Your task to perform on an android device: Open Yahoo.com Image 0: 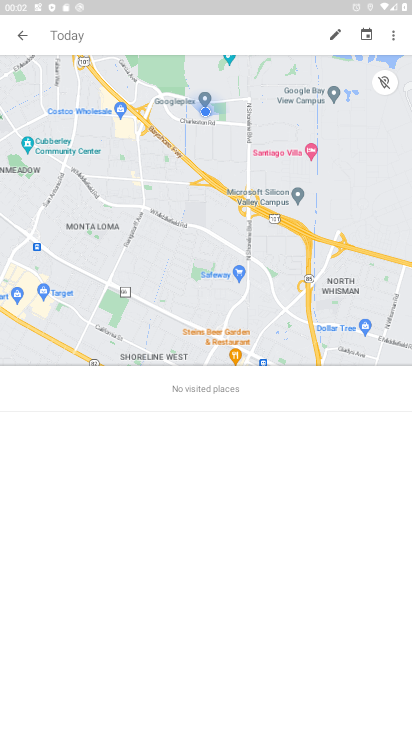
Step 0: click (216, 707)
Your task to perform on an android device: Open Yahoo.com Image 1: 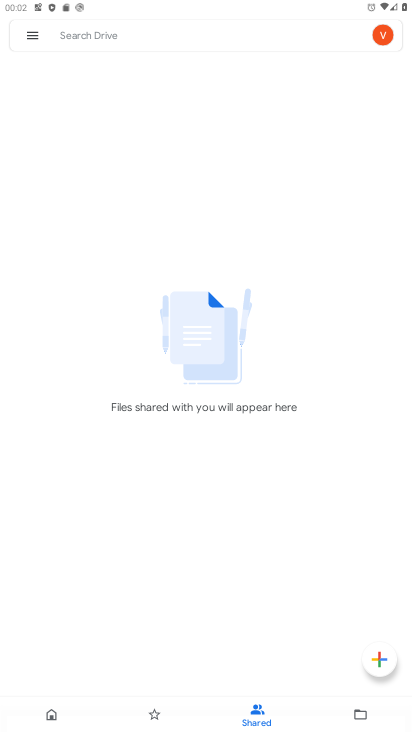
Step 1: press home button
Your task to perform on an android device: Open Yahoo.com Image 2: 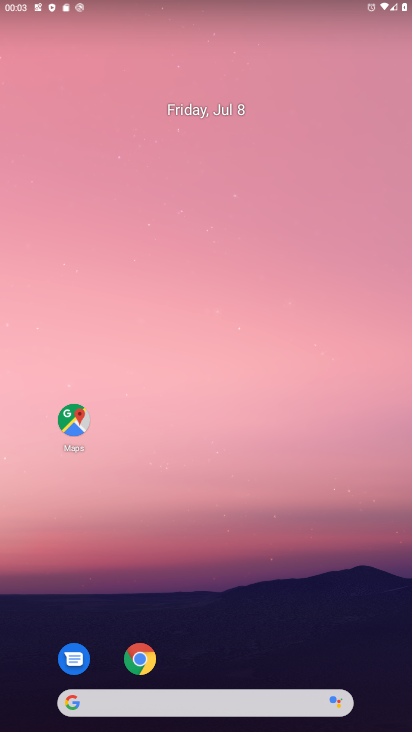
Step 2: click (137, 662)
Your task to perform on an android device: Open Yahoo.com Image 3: 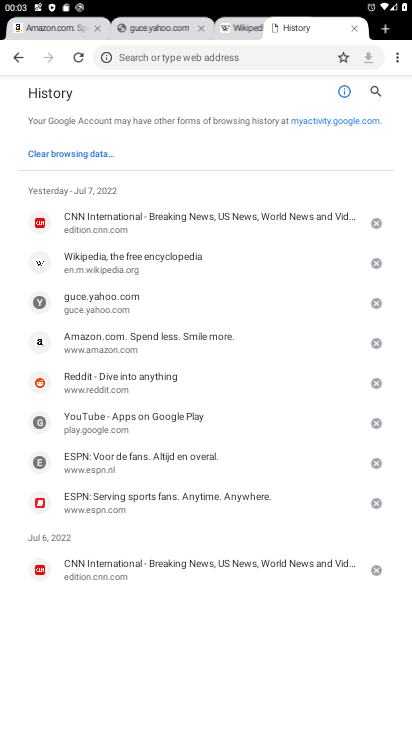
Step 3: click (388, 30)
Your task to perform on an android device: Open Yahoo.com Image 4: 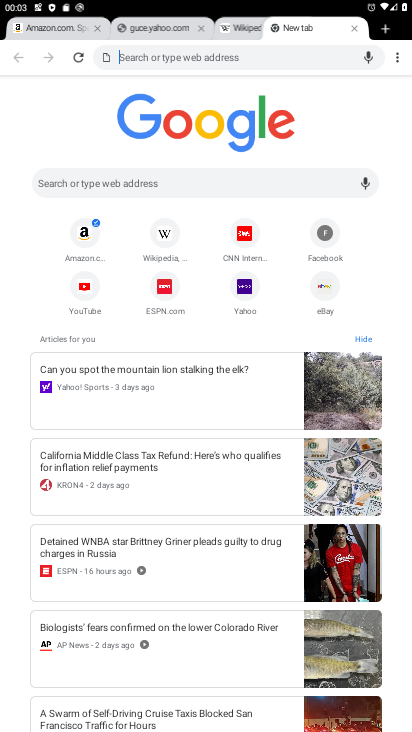
Step 4: click (241, 288)
Your task to perform on an android device: Open Yahoo.com Image 5: 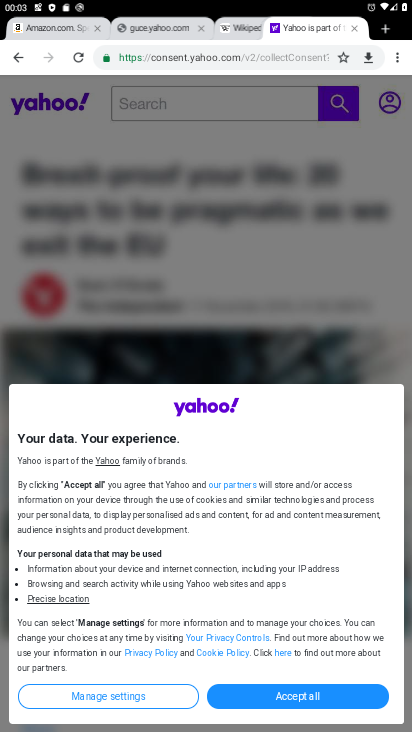
Step 5: task complete